Your task to perform on an android device: Search for vegetarian restaurants on Maps Image 0: 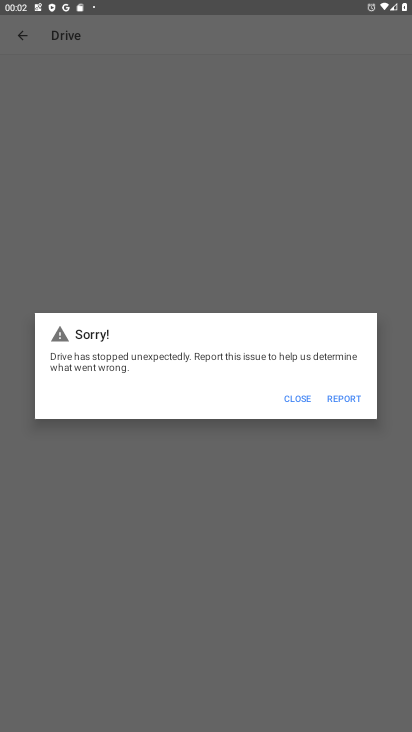
Step 0: press home button
Your task to perform on an android device: Search for vegetarian restaurants on Maps Image 1: 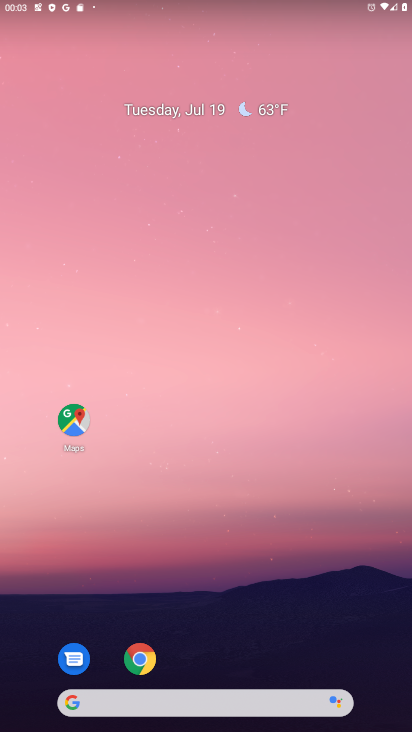
Step 1: click (84, 443)
Your task to perform on an android device: Search for vegetarian restaurants on Maps Image 2: 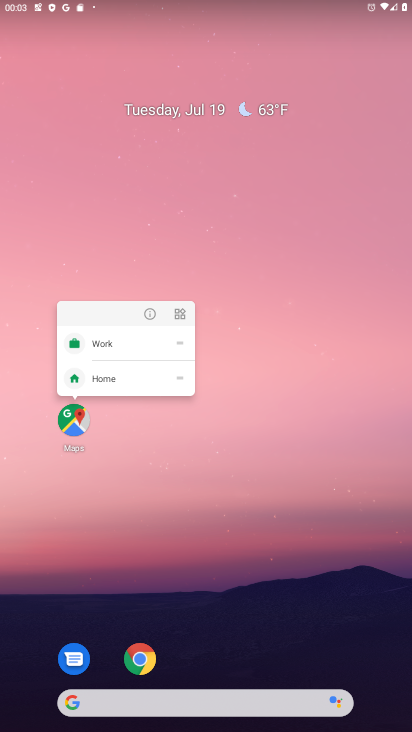
Step 2: click (84, 443)
Your task to perform on an android device: Search for vegetarian restaurants on Maps Image 3: 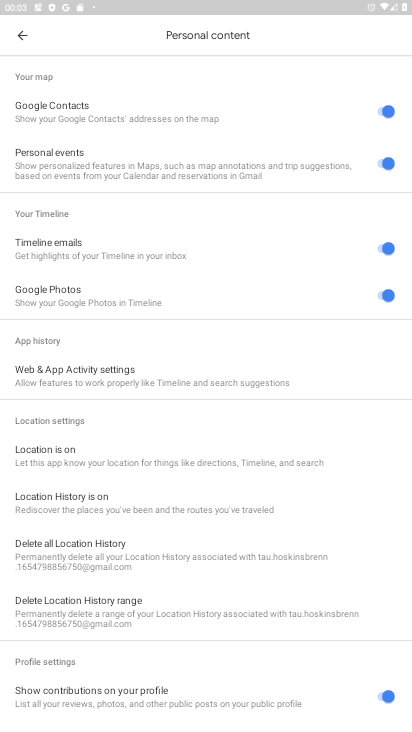
Step 3: click (14, 36)
Your task to perform on an android device: Search for vegetarian restaurants on Maps Image 4: 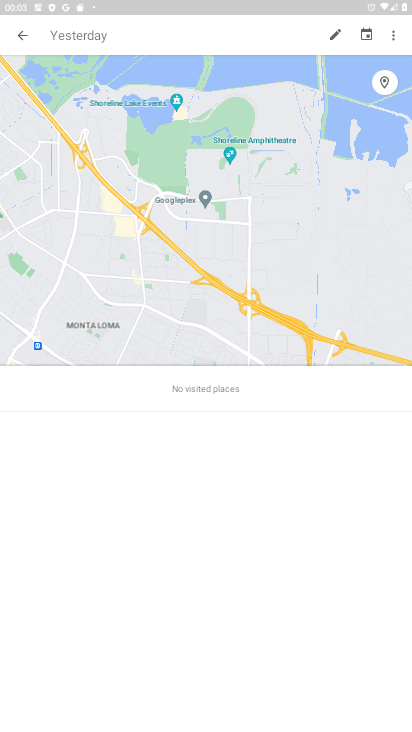
Step 4: click (14, 44)
Your task to perform on an android device: Search for vegetarian restaurants on Maps Image 5: 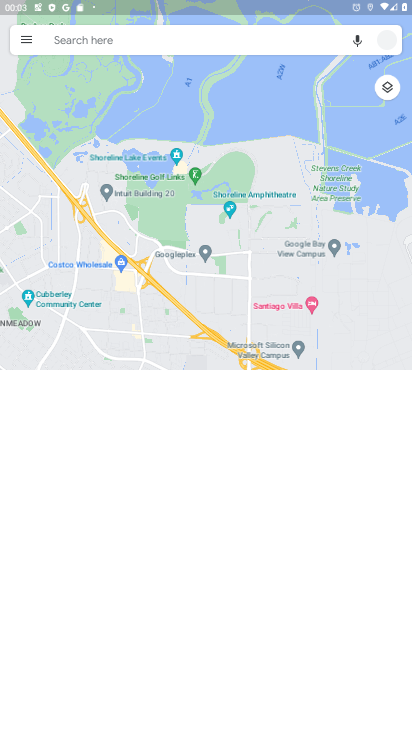
Step 5: click (134, 37)
Your task to perform on an android device: Search for vegetarian restaurants on Maps Image 6: 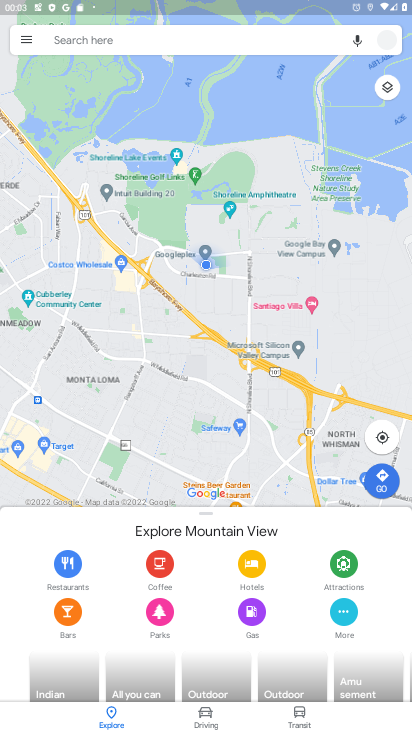
Step 6: click (134, 37)
Your task to perform on an android device: Search for vegetarian restaurants on Maps Image 7: 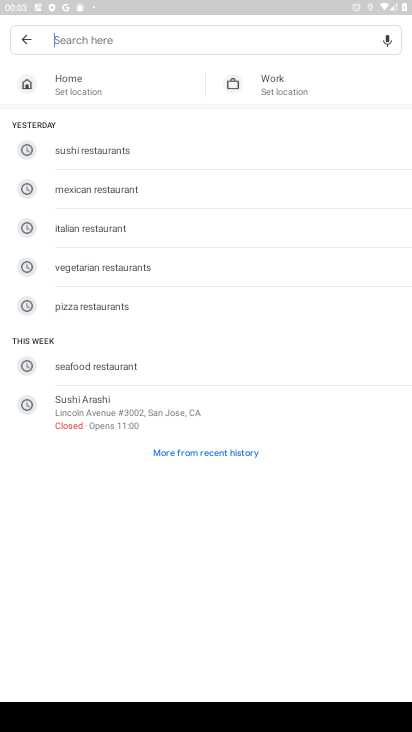
Step 7: click (254, 39)
Your task to perform on an android device: Search for vegetarian restaurants on Maps Image 8: 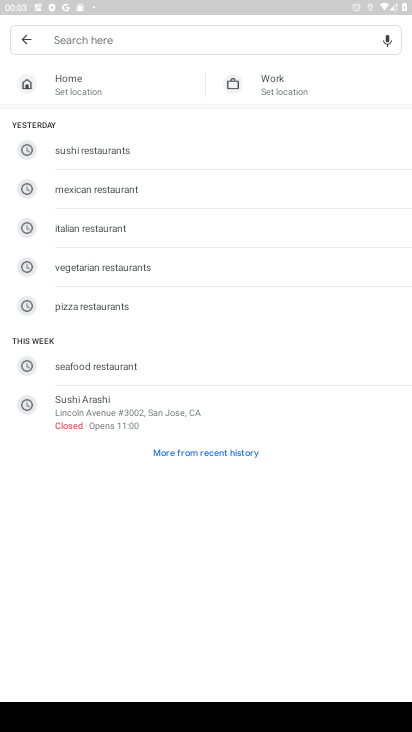
Step 8: type "vegetarian restaurants "
Your task to perform on an android device: Search for vegetarian restaurants on Maps Image 9: 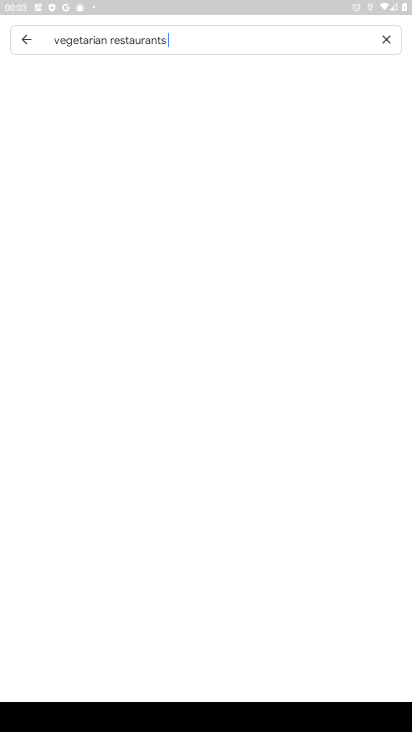
Step 9: type ""
Your task to perform on an android device: Search for vegetarian restaurants on Maps Image 10: 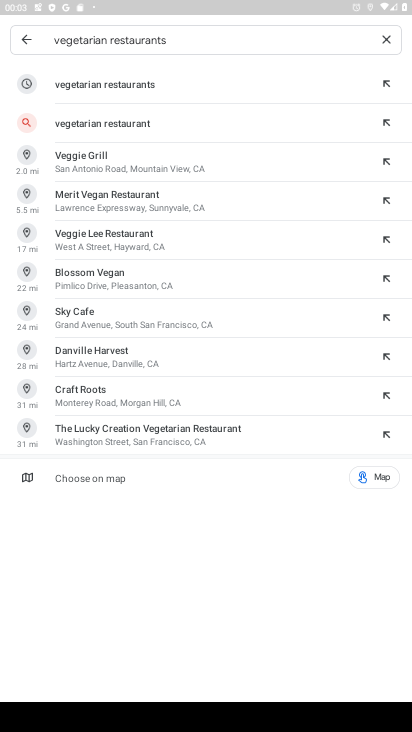
Step 10: click (80, 78)
Your task to perform on an android device: Search for vegetarian restaurants on Maps Image 11: 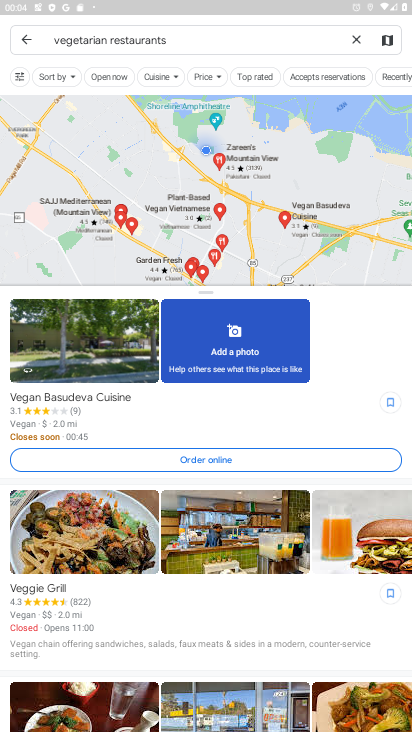
Step 11: task complete